Your task to perform on an android device: see tabs open on other devices in the chrome app Image 0: 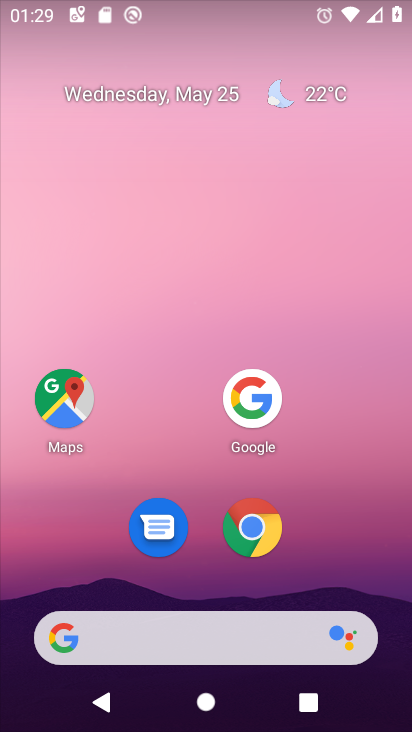
Step 0: press home button
Your task to perform on an android device: see tabs open on other devices in the chrome app Image 1: 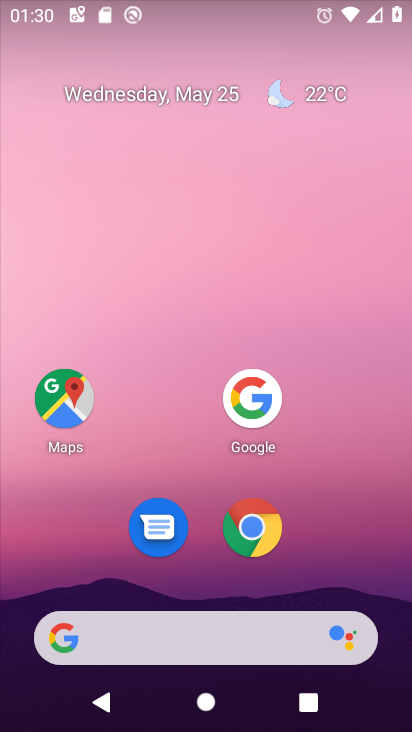
Step 1: click (254, 528)
Your task to perform on an android device: see tabs open on other devices in the chrome app Image 2: 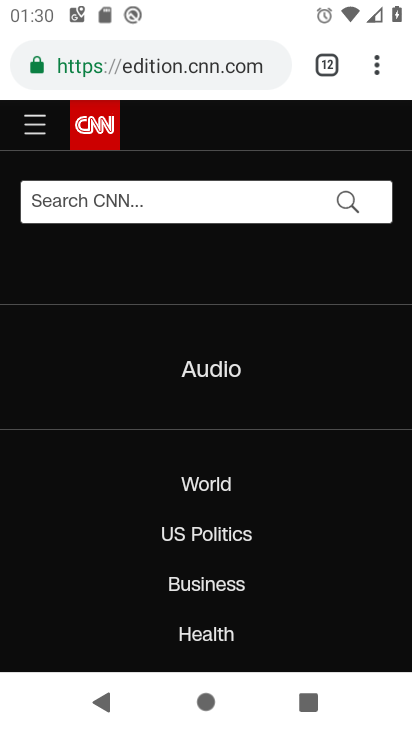
Step 2: task complete